Your task to perform on an android device: toggle priority inbox in the gmail app Image 0: 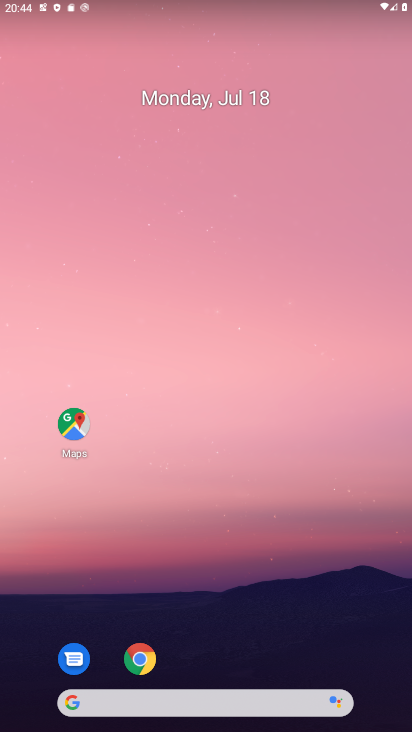
Step 0: drag from (62, 265) to (13, 59)
Your task to perform on an android device: toggle priority inbox in the gmail app Image 1: 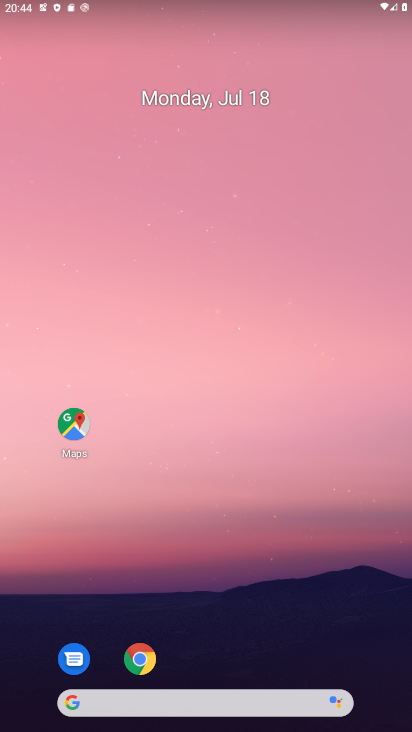
Step 1: drag from (168, 353) to (148, 208)
Your task to perform on an android device: toggle priority inbox in the gmail app Image 2: 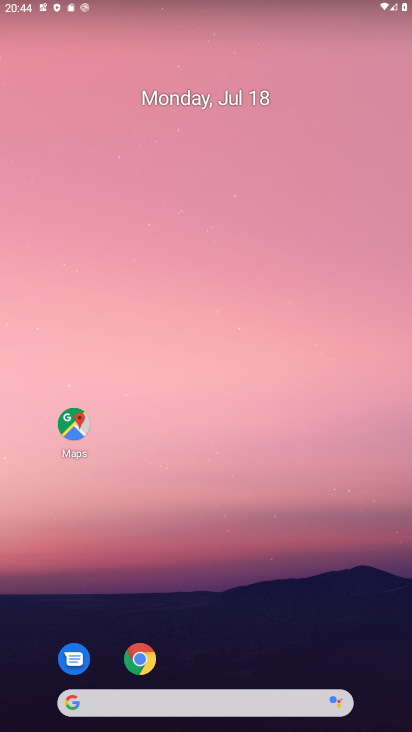
Step 2: drag from (229, 486) to (173, 7)
Your task to perform on an android device: toggle priority inbox in the gmail app Image 3: 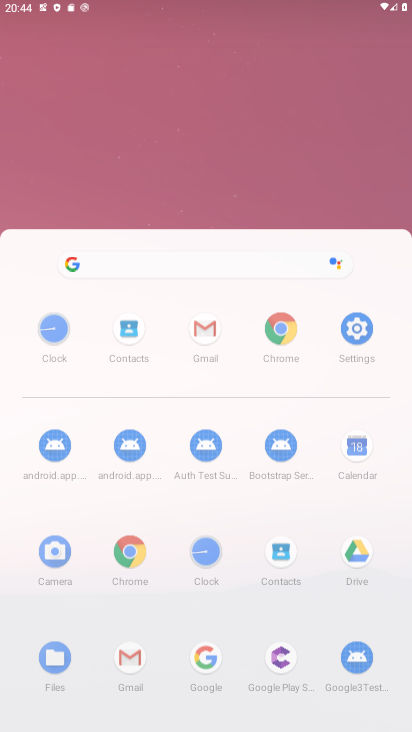
Step 3: drag from (281, 545) to (213, 39)
Your task to perform on an android device: toggle priority inbox in the gmail app Image 4: 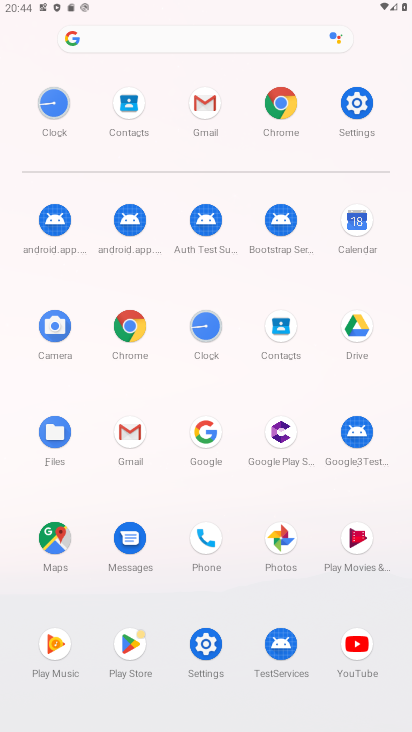
Step 4: click (133, 432)
Your task to perform on an android device: toggle priority inbox in the gmail app Image 5: 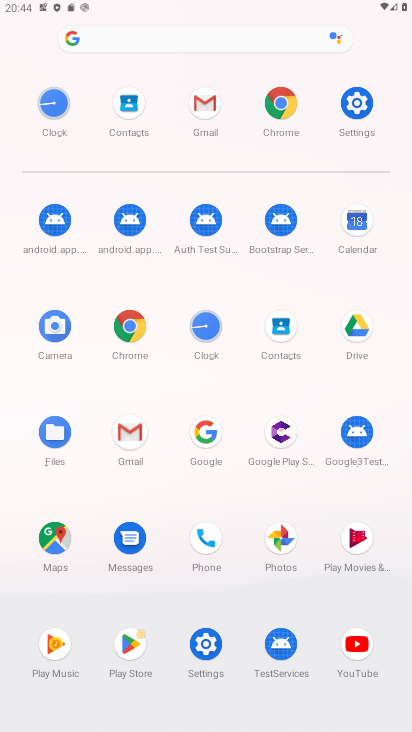
Step 5: click (132, 432)
Your task to perform on an android device: toggle priority inbox in the gmail app Image 6: 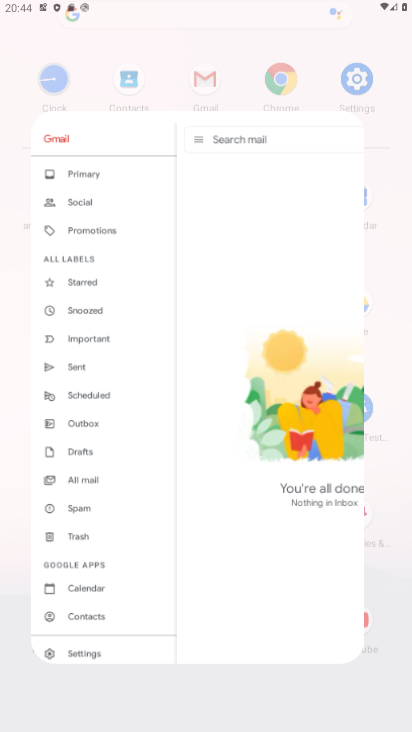
Step 6: click (136, 433)
Your task to perform on an android device: toggle priority inbox in the gmail app Image 7: 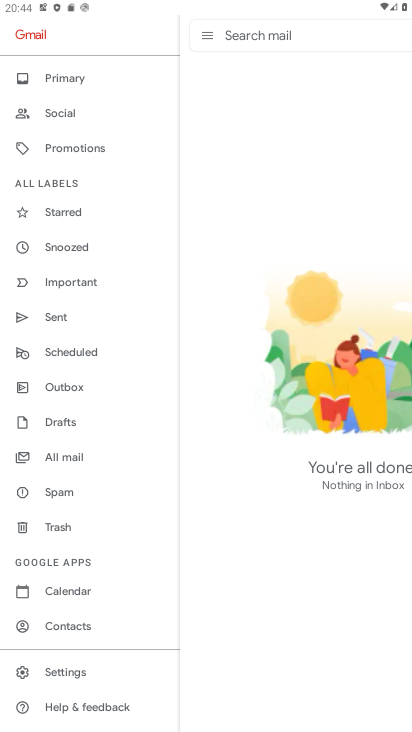
Step 7: click (68, 659)
Your task to perform on an android device: toggle priority inbox in the gmail app Image 8: 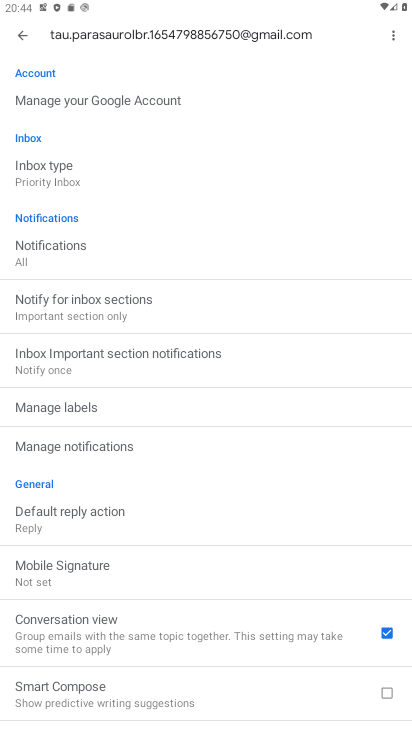
Step 8: click (45, 174)
Your task to perform on an android device: toggle priority inbox in the gmail app Image 9: 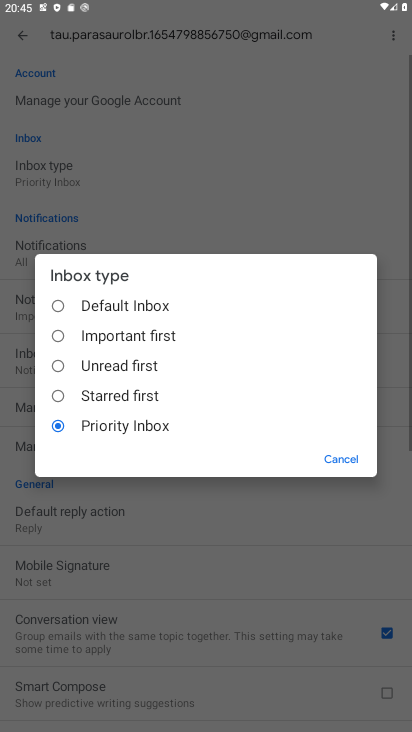
Step 9: click (45, 174)
Your task to perform on an android device: toggle priority inbox in the gmail app Image 10: 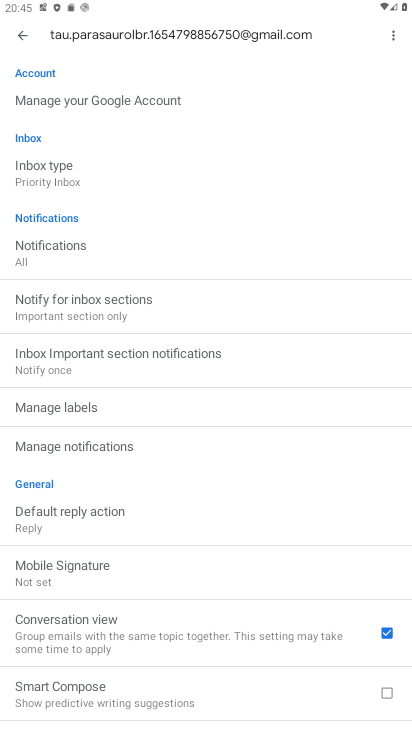
Step 10: task complete